Your task to perform on an android device: Open calendar and show me the second week of next month Image 0: 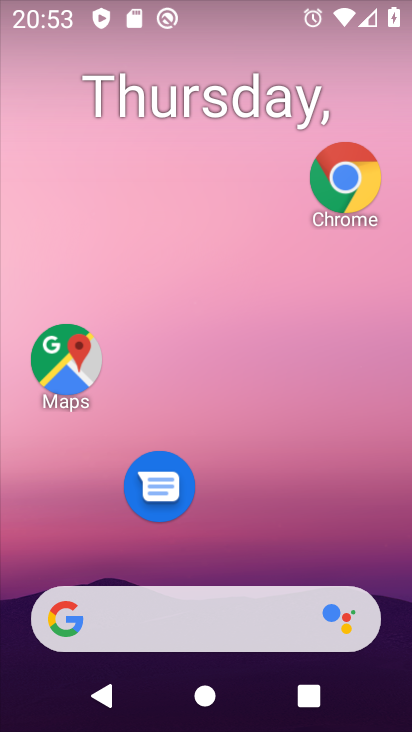
Step 0: drag from (228, 555) to (319, 3)
Your task to perform on an android device: Open calendar and show me the second week of next month Image 1: 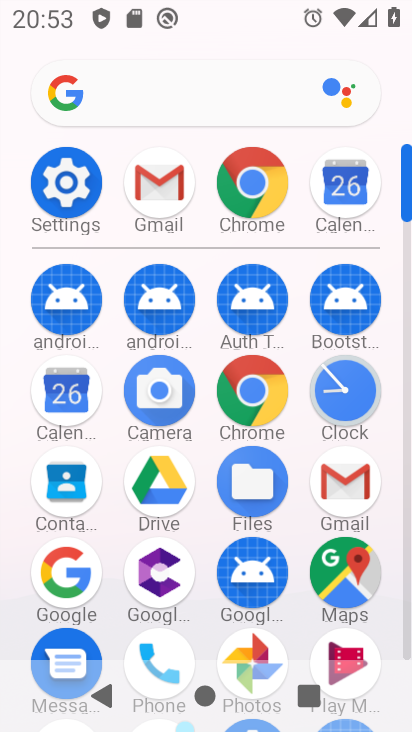
Step 1: click (355, 195)
Your task to perform on an android device: Open calendar and show me the second week of next month Image 2: 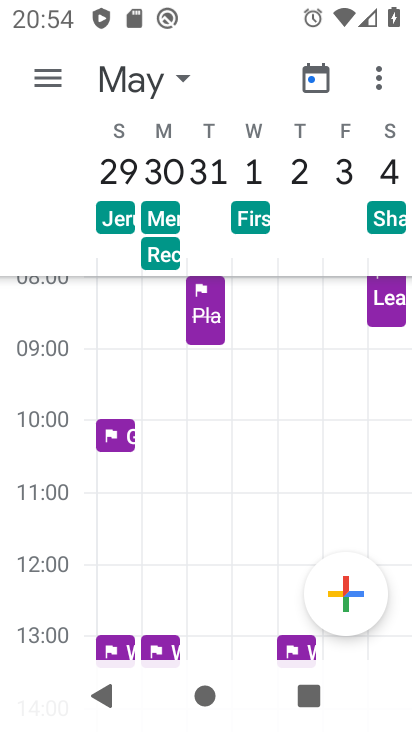
Step 2: task complete